Your task to perform on an android device: change the clock display to show seconds Image 0: 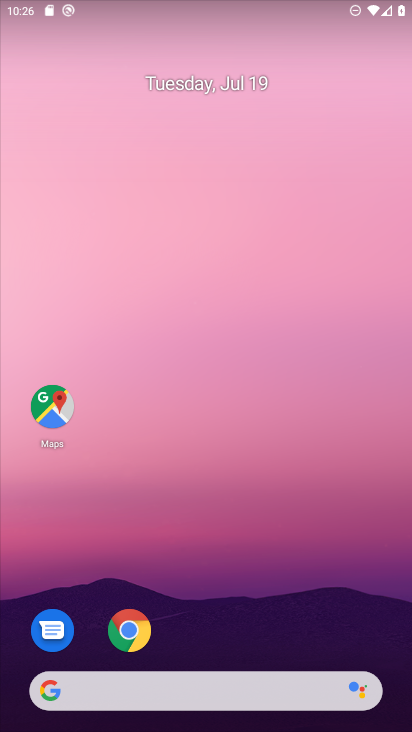
Step 0: drag from (188, 623) to (220, 178)
Your task to perform on an android device: change the clock display to show seconds Image 1: 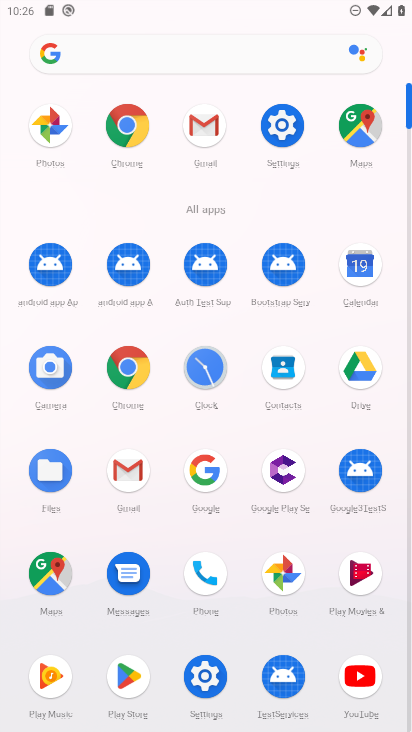
Step 1: click (221, 377)
Your task to perform on an android device: change the clock display to show seconds Image 2: 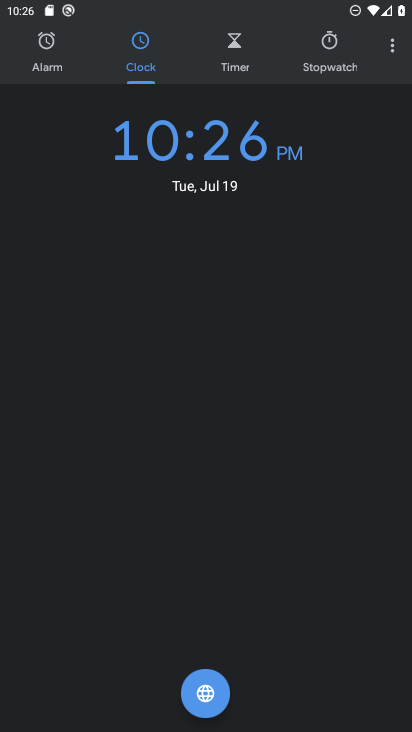
Step 2: click (385, 37)
Your task to perform on an android device: change the clock display to show seconds Image 3: 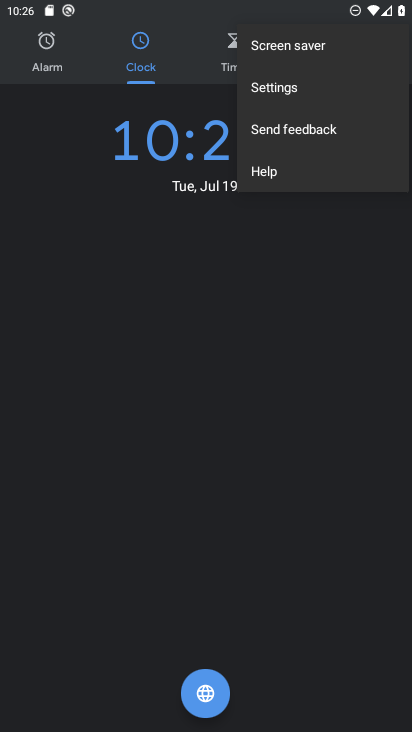
Step 3: click (341, 94)
Your task to perform on an android device: change the clock display to show seconds Image 4: 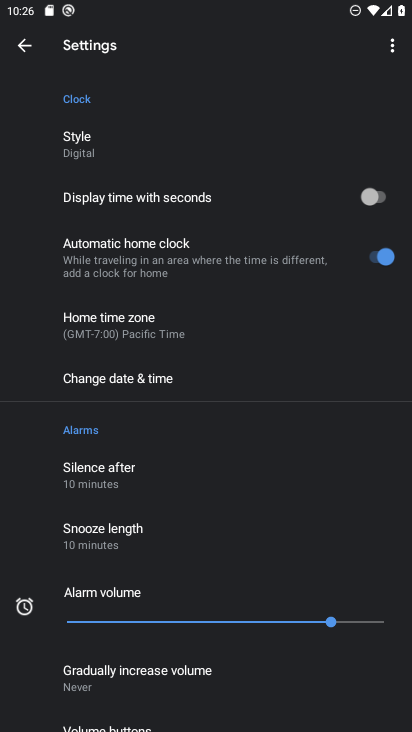
Step 4: click (383, 193)
Your task to perform on an android device: change the clock display to show seconds Image 5: 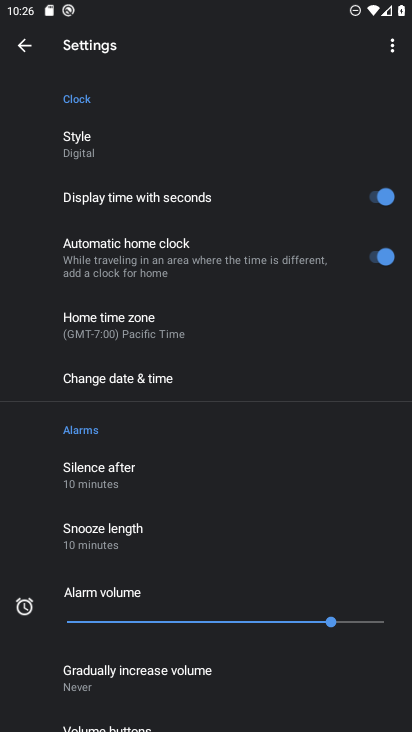
Step 5: task complete